Your task to perform on an android device: Turn off the flashlight Image 0: 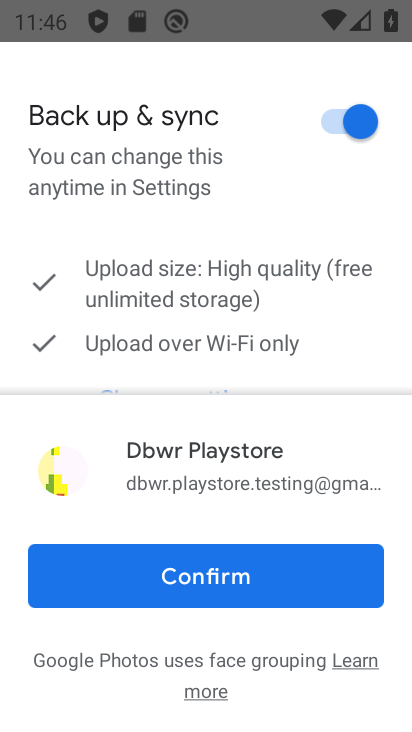
Step 0: press home button
Your task to perform on an android device: Turn off the flashlight Image 1: 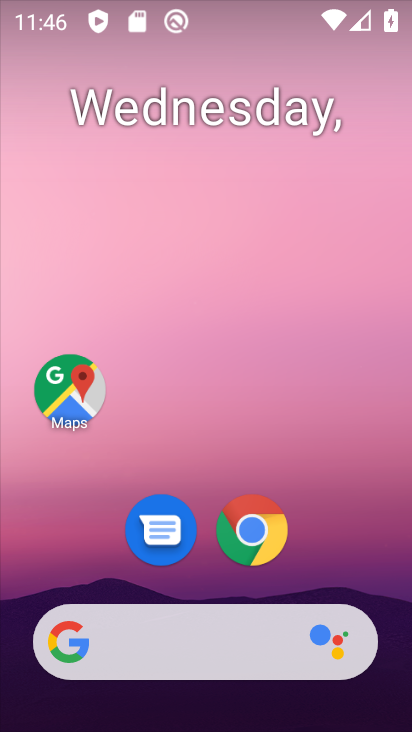
Step 1: task complete